Your task to perform on an android device: remove spam from my inbox in the gmail app Image 0: 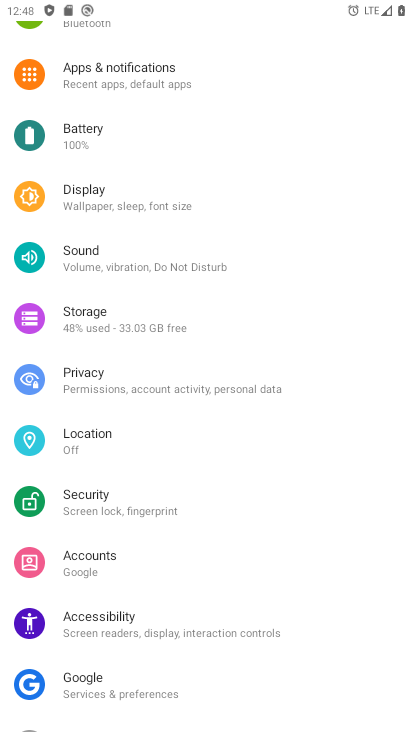
Step 0: press home button
Your task to perform on an android device: remove spam from my inbox in the gmail app Image 1: 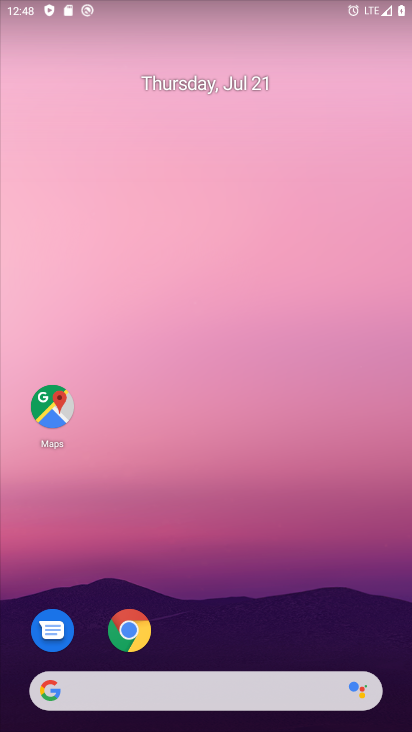
Step 1: drag from (173, 640) to (160, 91)
Your task to perform on an android device: remove spam from my inbox in the gmail app Image 2: 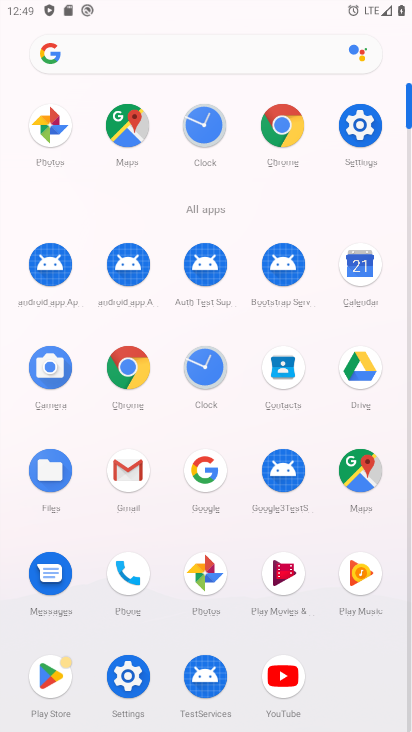
Step 2: click (125, 484)
Your task to perform on an android device: remove spam from my inbox in the gmail app Image 3: 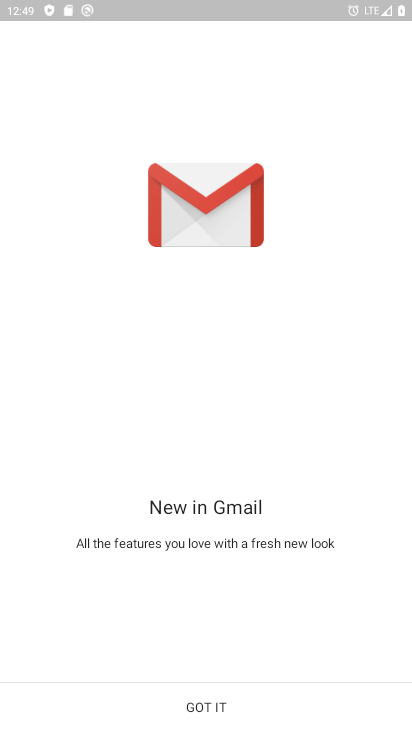
Step 3: click (231, 714)
Your task to perform on an android device: remove spam from my inbox in the gmail app Image 4: 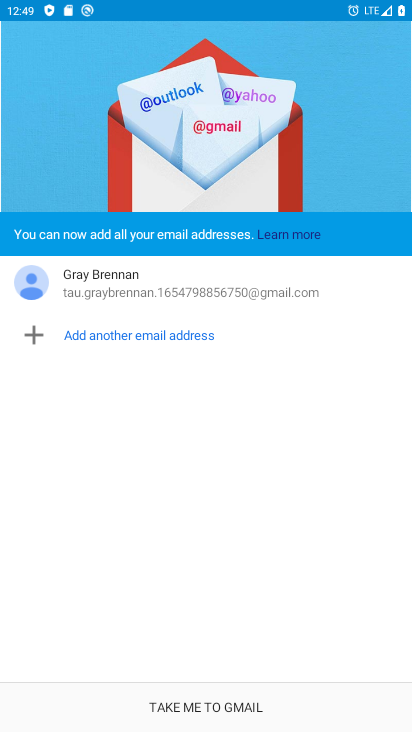
Step 4: click (231, 714)
Your task to perform on an android device: remove spam from my inbox in the gmail app Image 5: 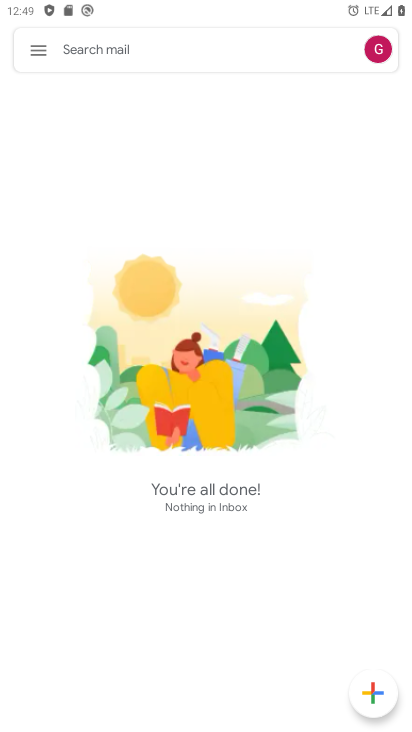
Step 5: click (27, 54)
Your task to perform on an android device: remove spam from my inbox in the gmail app Image 6: 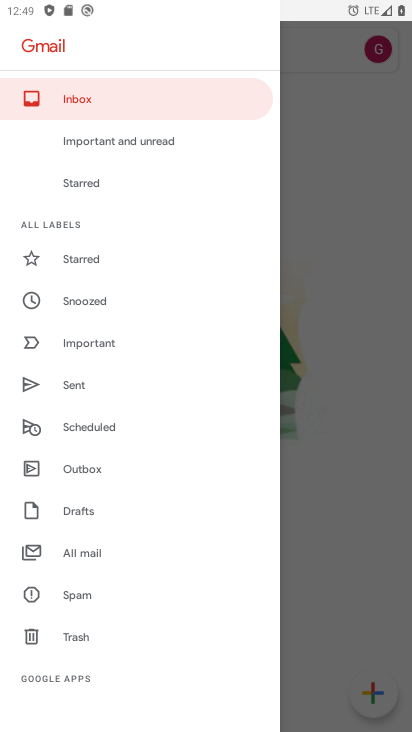
Step 6: click (99, 593)
Your task to perform on an android device: remove spam from my inbox in the gmail app Image 7: 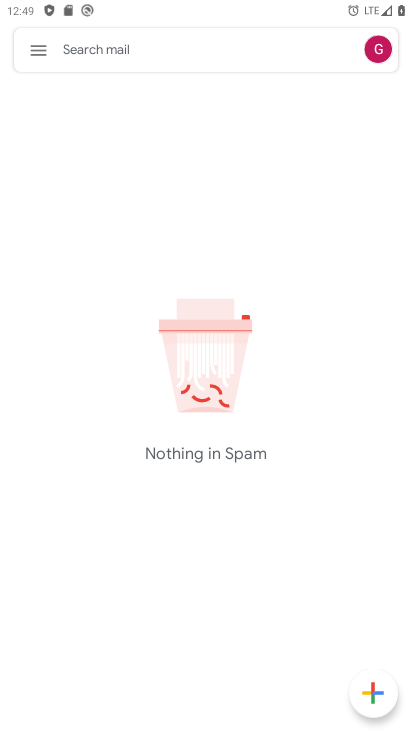
Step 7: task complete